Your task to perform on an android device: Open Maps and search for coffee Image 0: 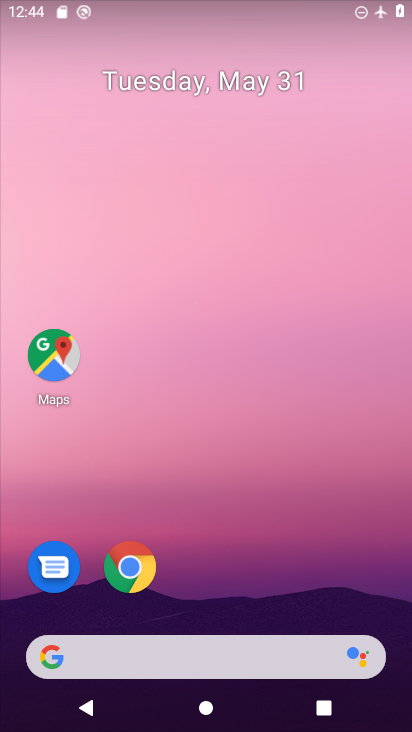
Step 0: click (55, 370)
Your task to perform on an android device: Open Maps and search for coffee Image 1: 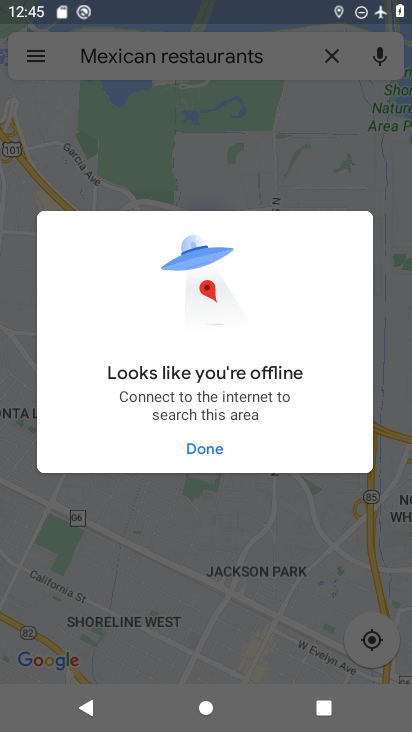
Step 1: task complete